Your task to perform on an android device: read, delete, or share a saved page in the chrome app Image 0: 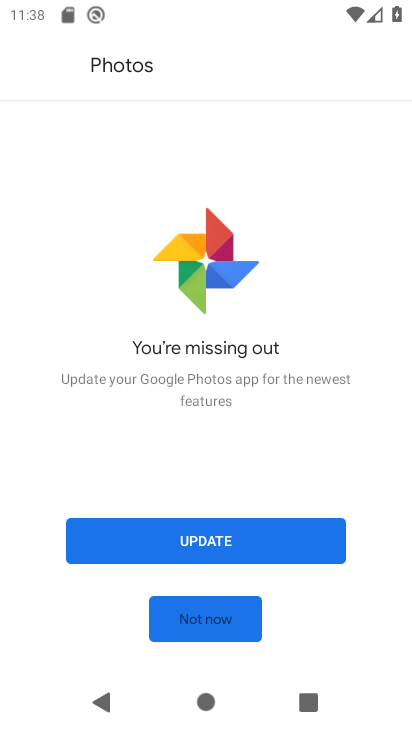
Step 0: press back button
Your task to perform on an android device: read, delete, or share a saved page in the chrome app Image 1: 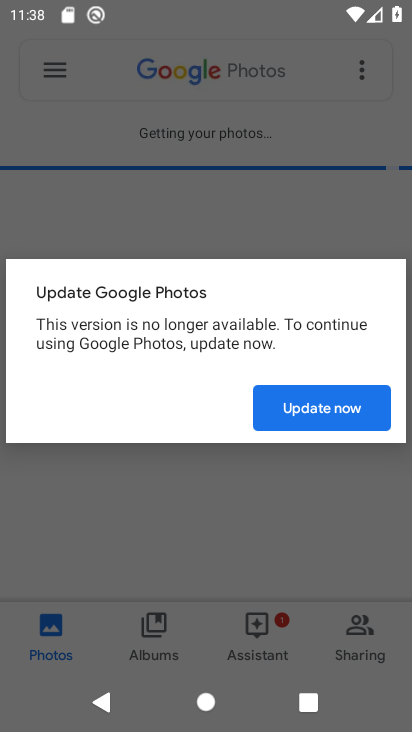
Step 1: press home button
Your task to perform on an android device: read, delete, or share a saved page in the chrome app Image 2: 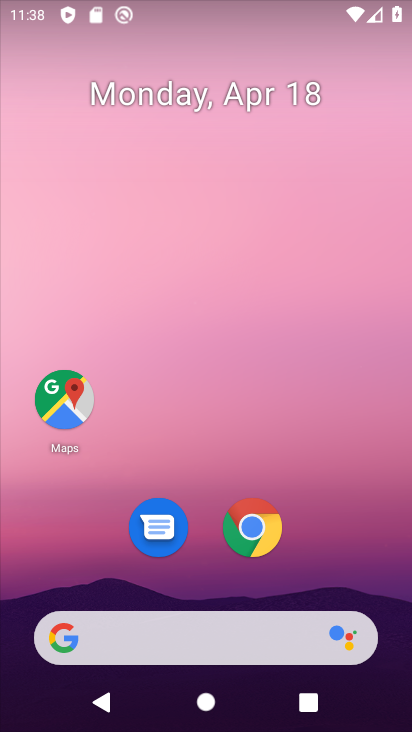
Step 2: click (253, 525)
Your task to perform on an android device: read, delete, or share a saved page in the chrome app Image 3: 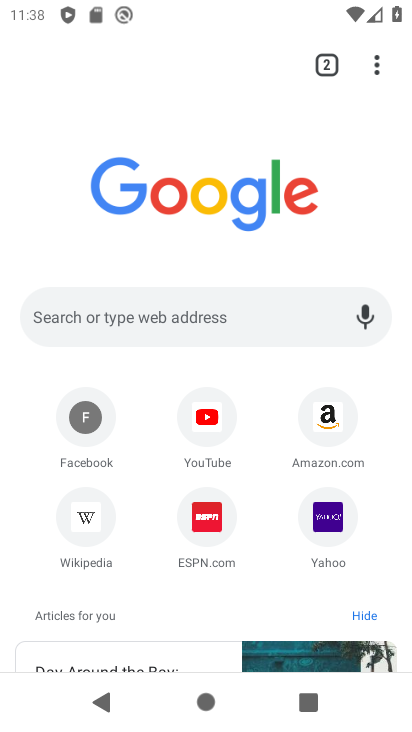
Step 3: click (367, 59)
Your task to perform on an android device: read, delete, or share a saved page in the chrome app Image 4: 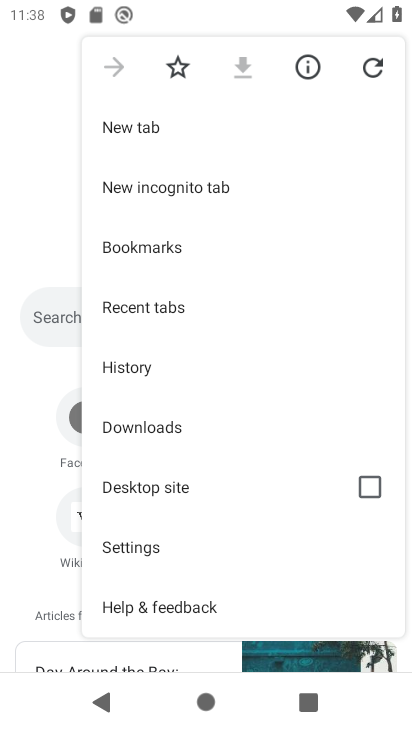
Step 4: click (175, 420)
Your task to perform on an android device: read, delete, or share a saved page in the chrome app Image 5: 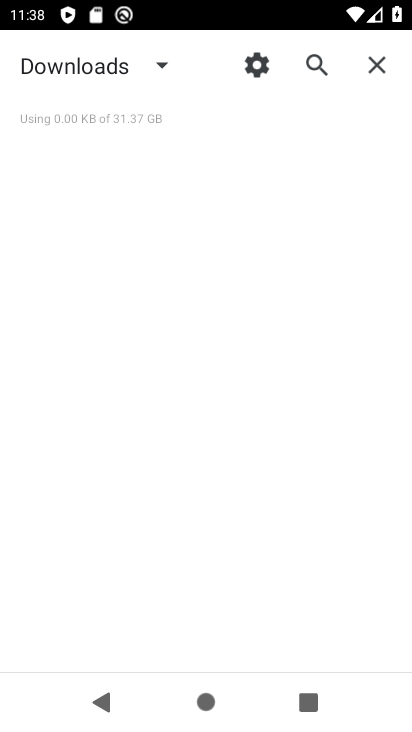
Step 5: click (164, 65)
Your task to perform on an android device: read, delete, or share a saved page in the chrome app Image 6: 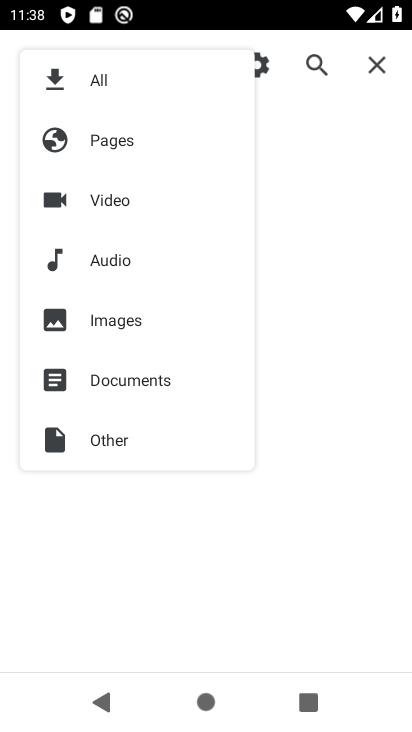
Step 6: click (149, 127)
Your task to perform on an android device: read, delete, or share a saved page in the chrome app Image 7: 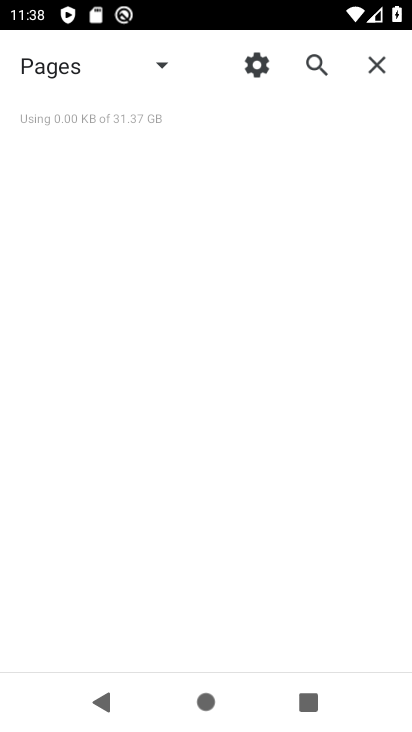
Step 7: task complete